Your task to perform on an android device: stop showing notifications on the lock screen Image 0: 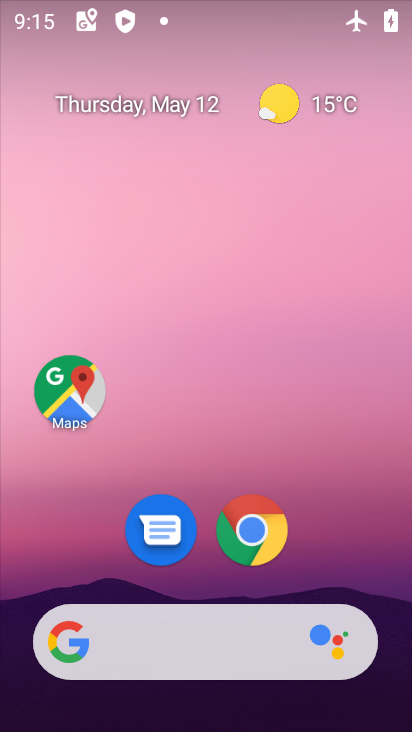
Step 0: drag from (235, 704) to (124, 9)
Your task to perform on an android device: stop showing notifications on the lock screen Image 1: 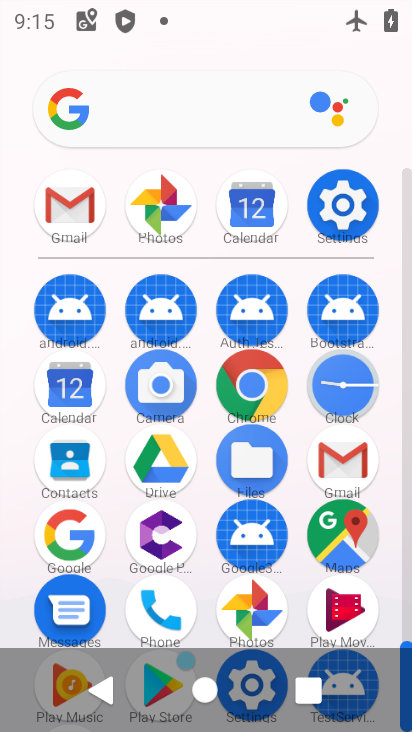
Step 1: click (381, 209)
Your task to perform on an android device: stop showing notifications on the lock screen Image 2: 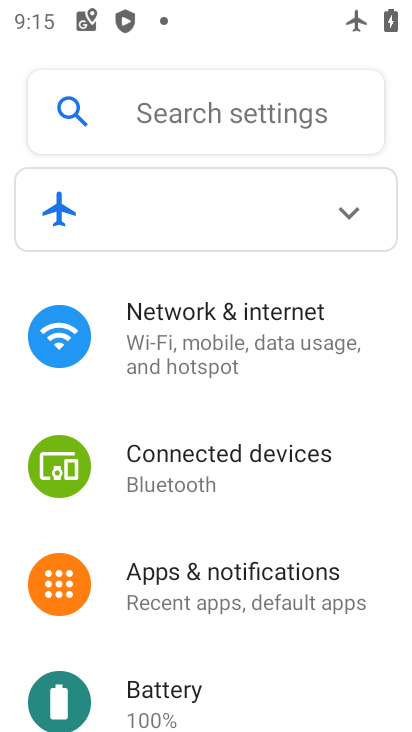
Step 2: click (238, 578)
Your task to perform on an android device: stop showing notifications on the lock screen Image 3: 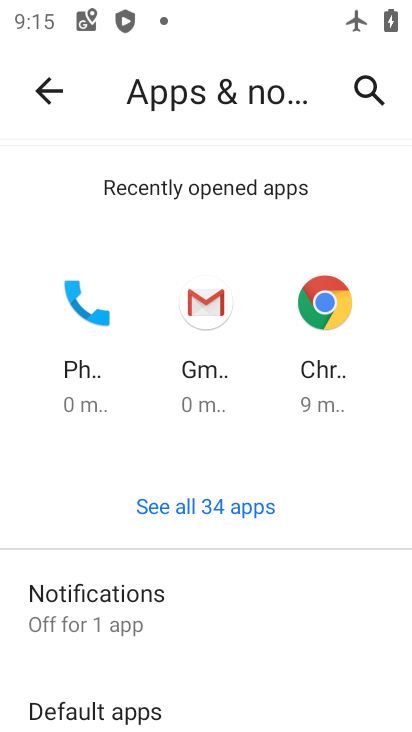
Step 3: click (146, 586)
Your task to perform on an android device: stop showing notifications on the lock screen Image 4: 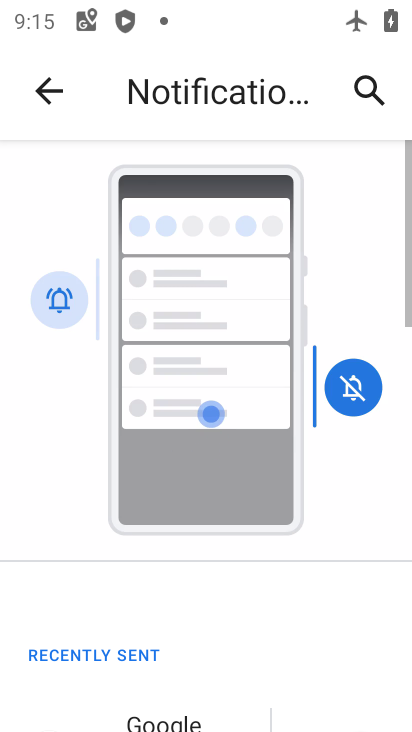
Step 4: drag from (202, 621) to (180, 19)
Your task to perform on an android device: stop showing notifications on the lock screen Image 5: 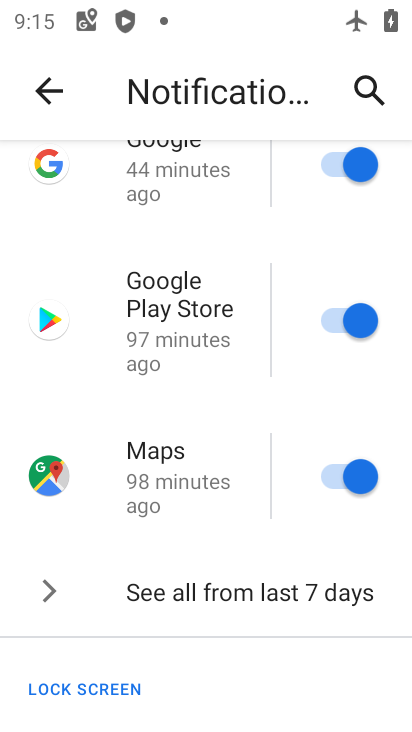
Step 5: drag from (245, 614) to (322, 89)
Your task to perform on an android device: stop showing notifications on the lock screen Image 6: 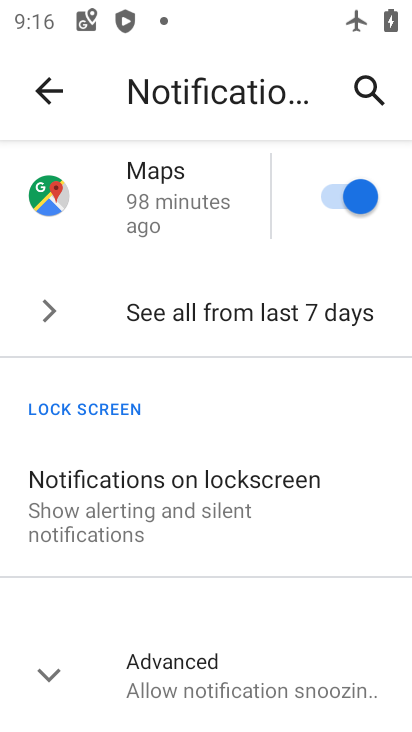
Step 6: click (176, 491)
Your task to perform on an android device: stop showing notifications on the lock screen Image 7: 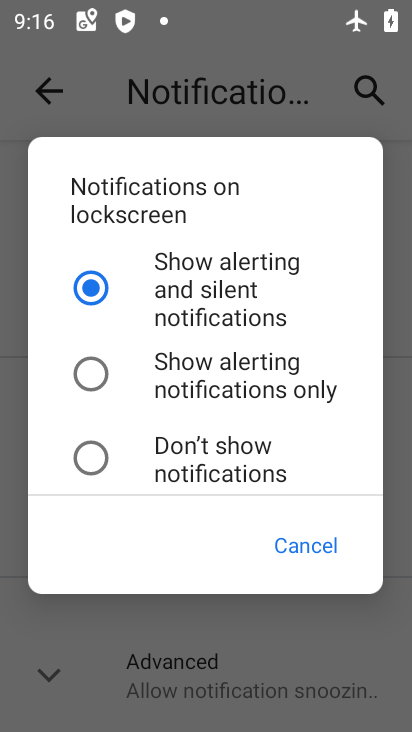
Step 7: click (203, 437)
Your task to perform on an android device: stop showing notifications on the lock screen Image 8: 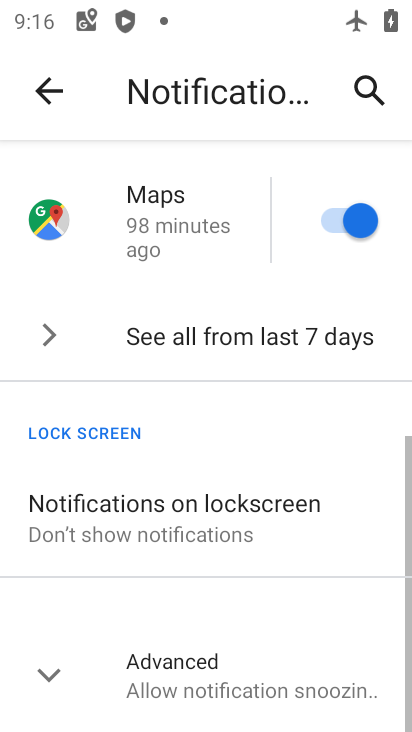
Step 8: task complete